Your task to perform on an android device: Search for a new desk on IKEA. Image 0: 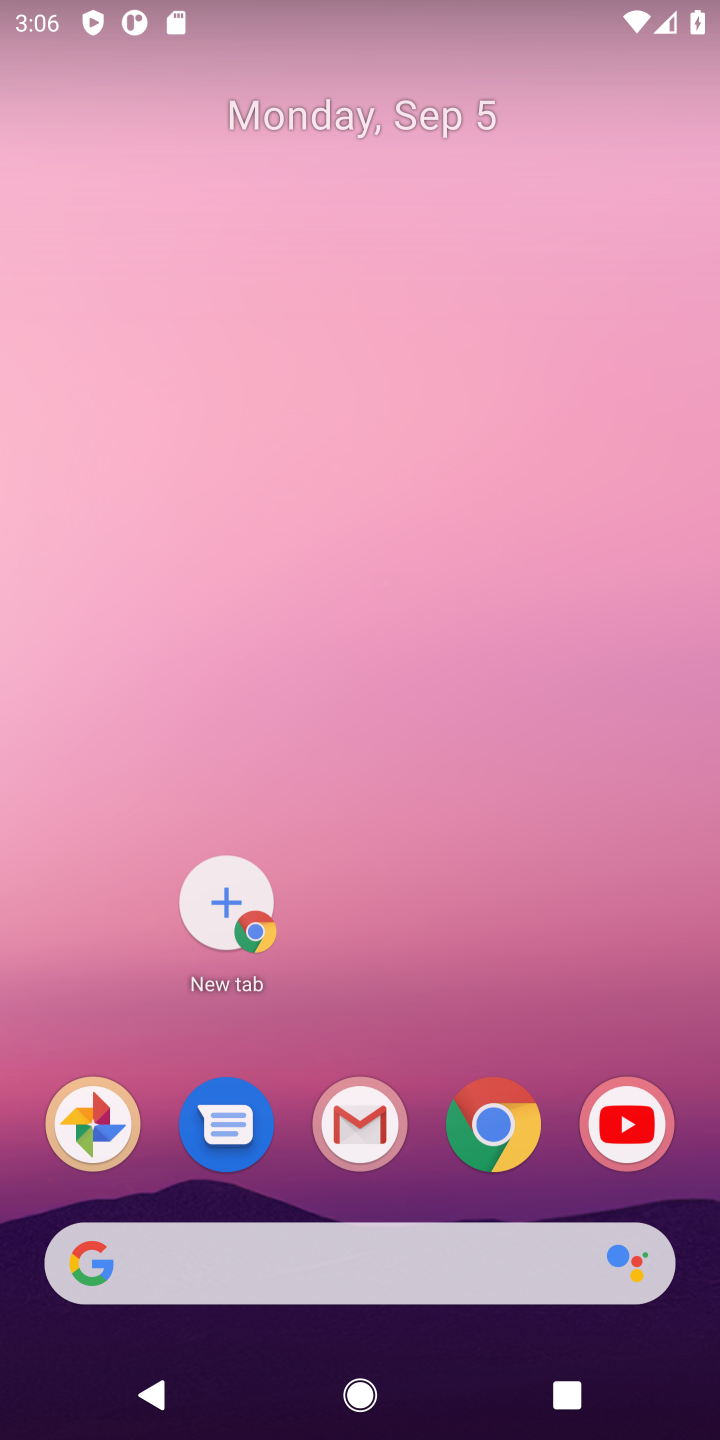
Step 0: press home button
Your task to perform on an android device: Search for a new desk on IKEA. Image 1: 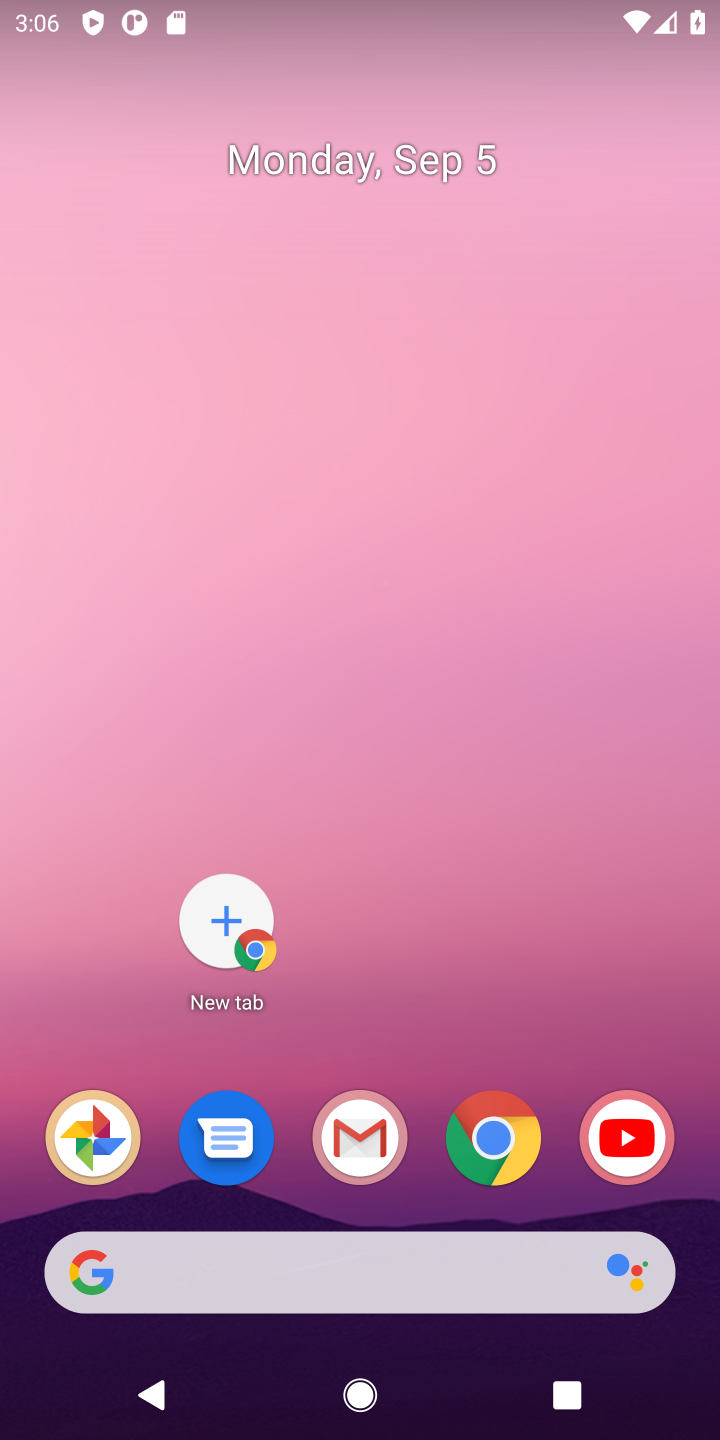
Step 1: click (486, 1128)
Your task to perform on an android device: Search for a new desk on IKEA. Image 2: 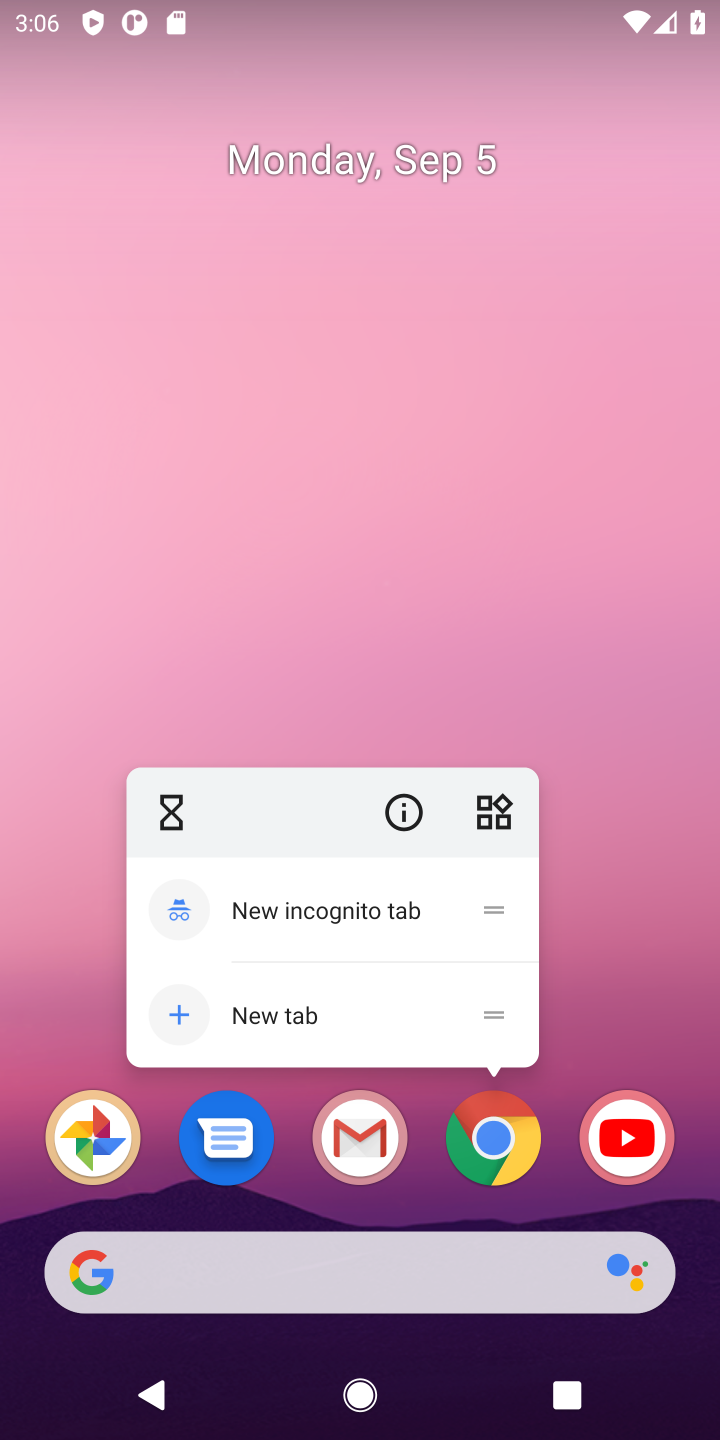
Step 2: click (528, 1151)
Your task to perform on an android device: Search for a new desk on IKEA. Image 3: 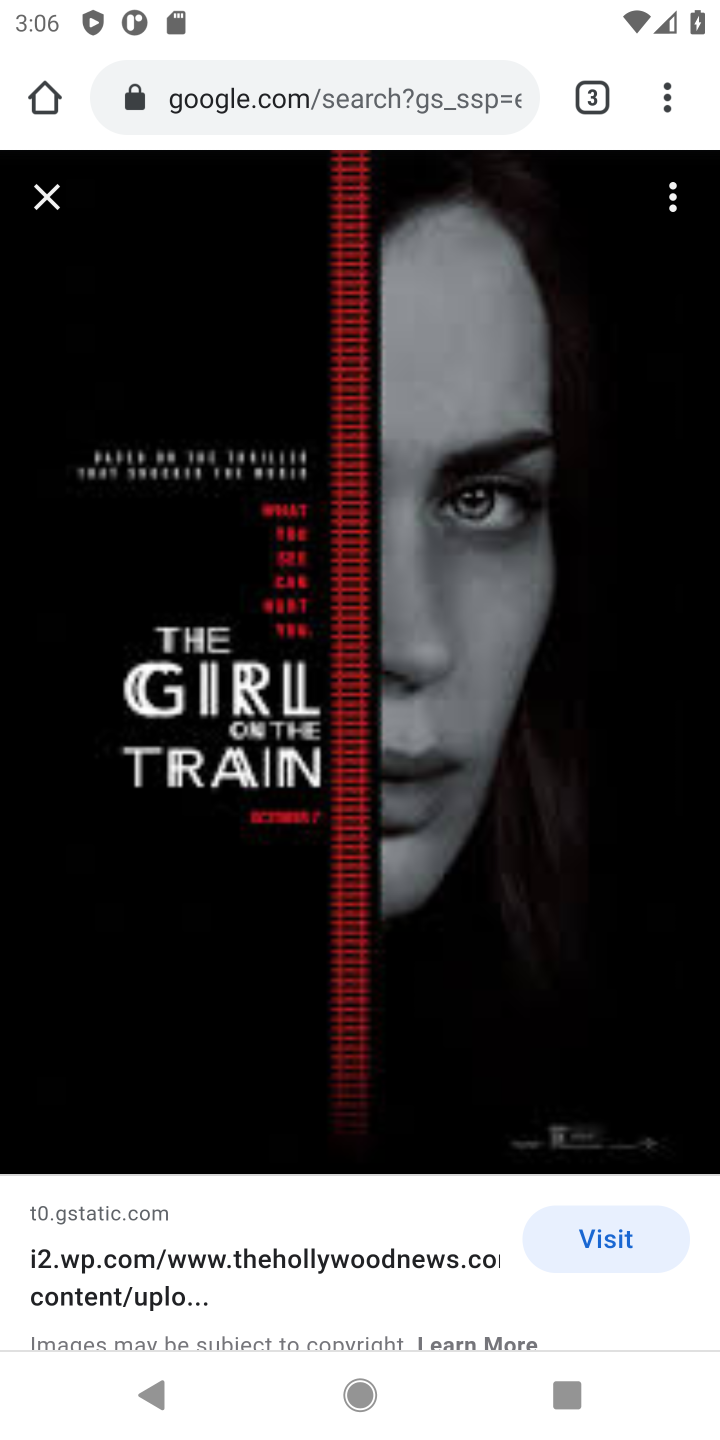
Step 3: click (233, 102)
Your task to perform on an android device: Search for a new desk on IKEA. Image 4: 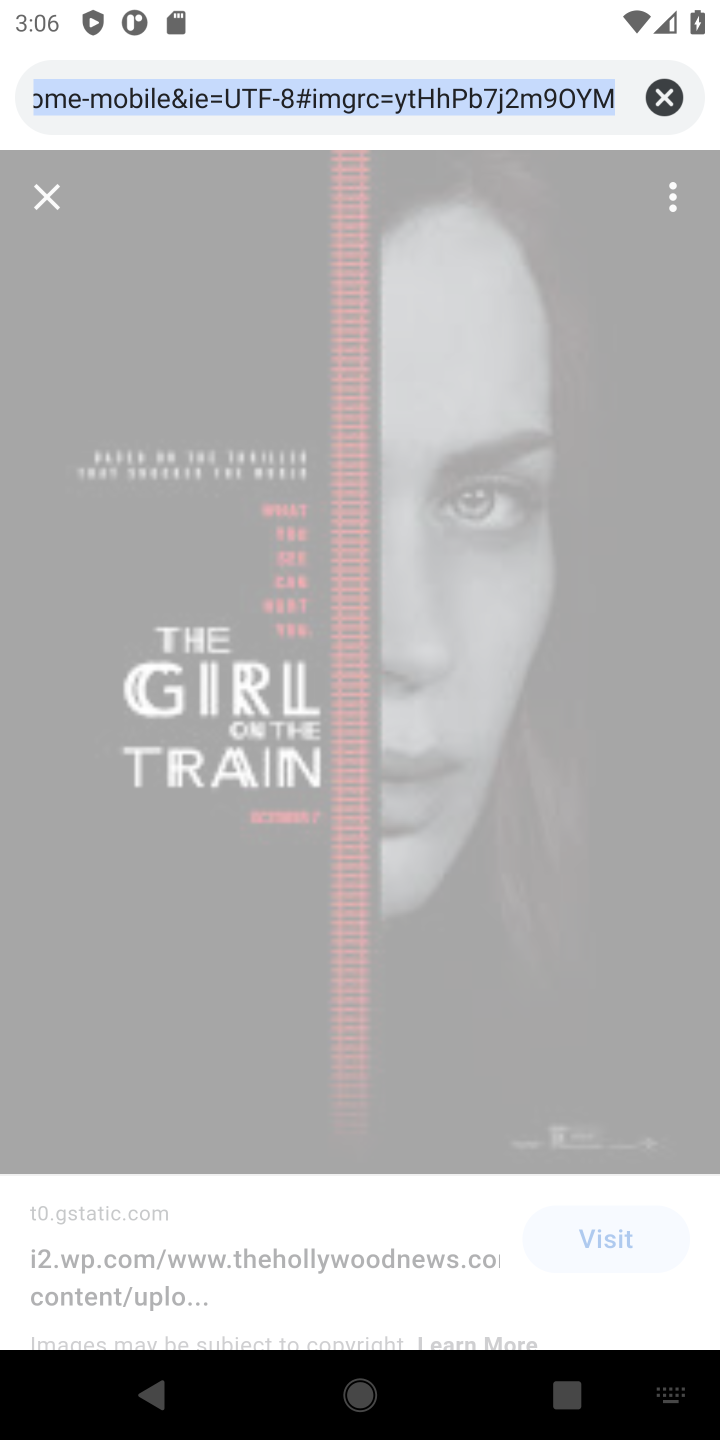
Step 4: click (660, 103)
Your task to perform on an android device: Search for a new desk on IKEA. Image 5: 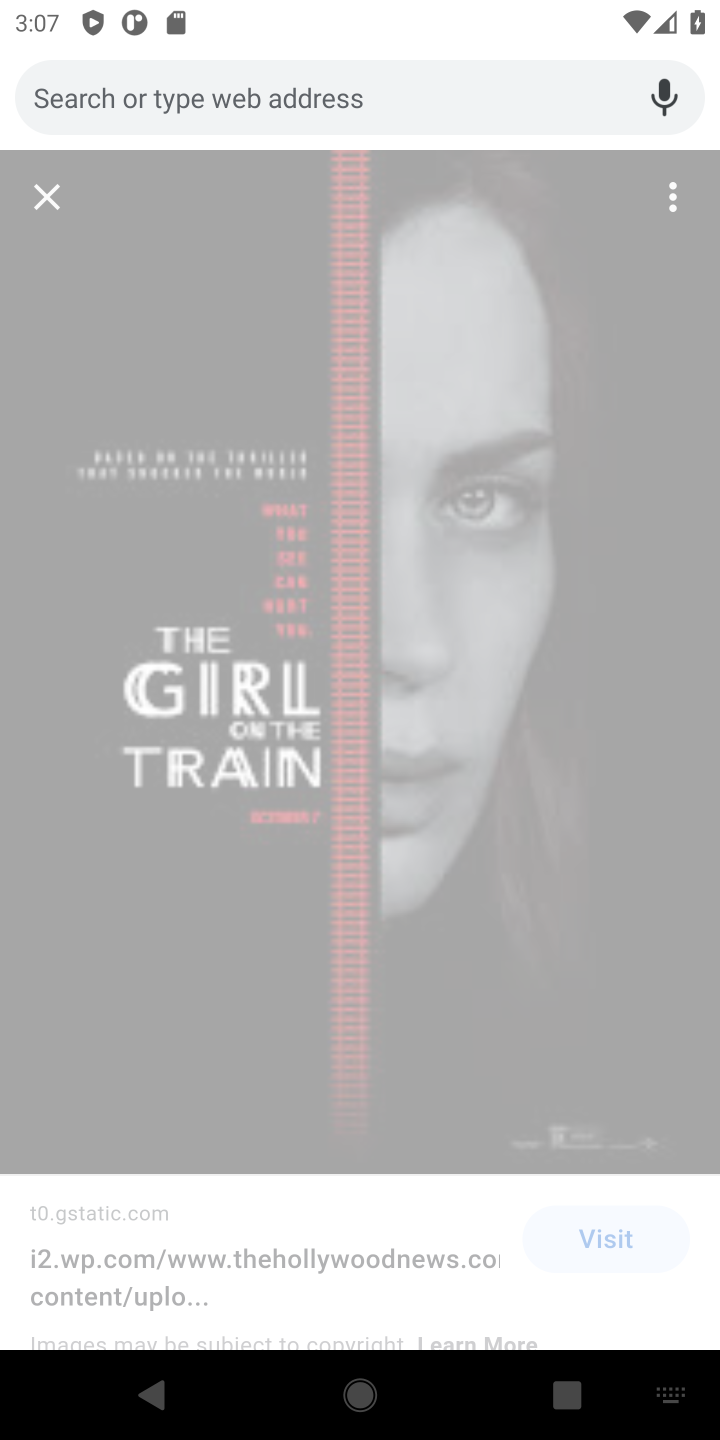
Step 5: type "ikea"
Your task to perform on an android device: Search for a new desk on IKEA. Image 6: 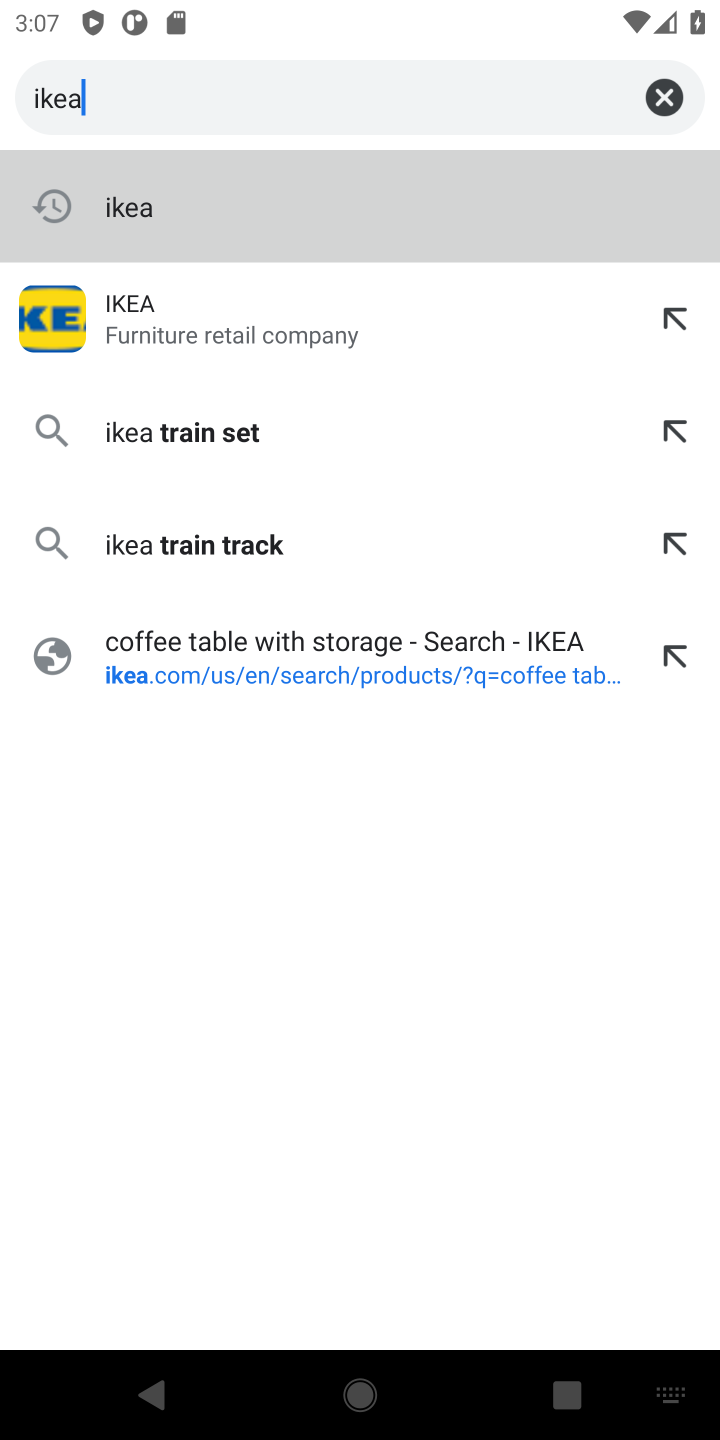
Step 6: click (159, 326)
Your task to perform on an android device: Search for a new desk on IKEA. Image 7: 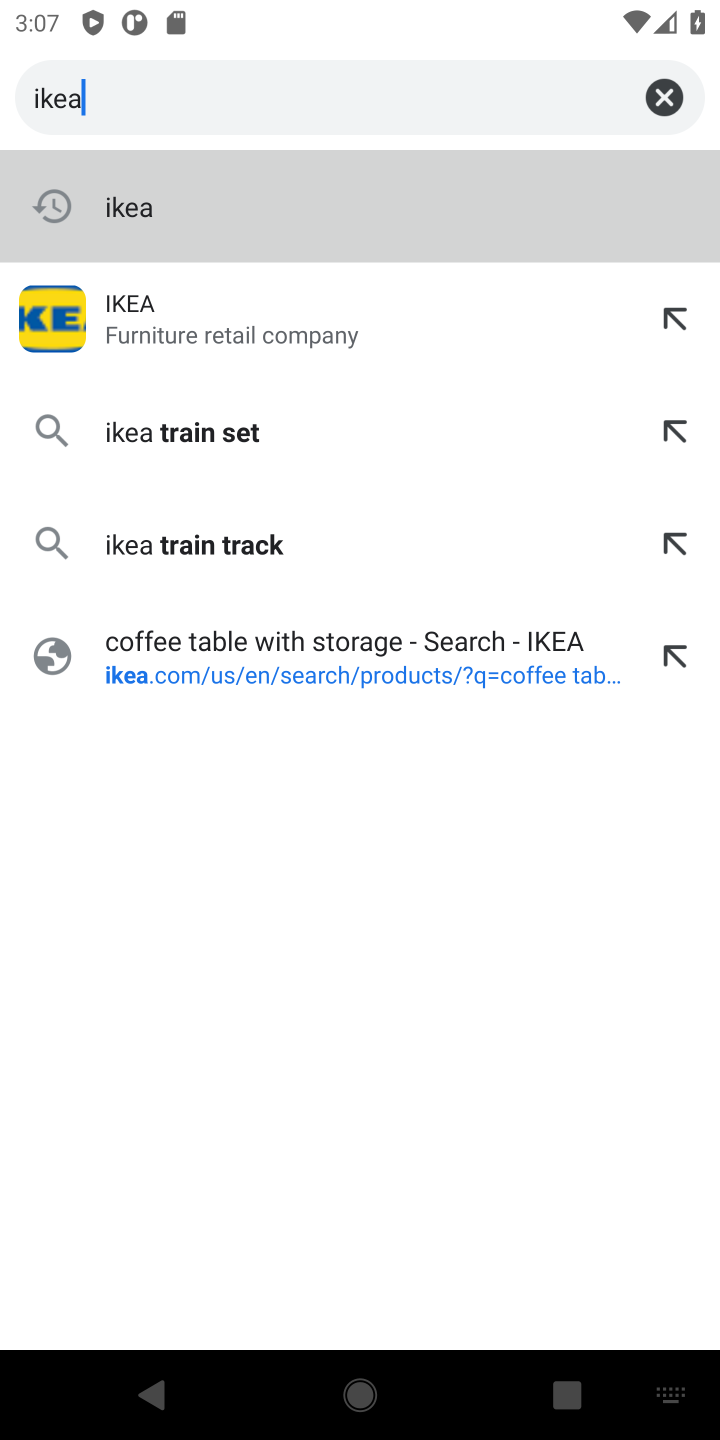
Step 7: click (159, 347)
Your task to perform on an android device: Search for a new desk on IKEA. Image 8: 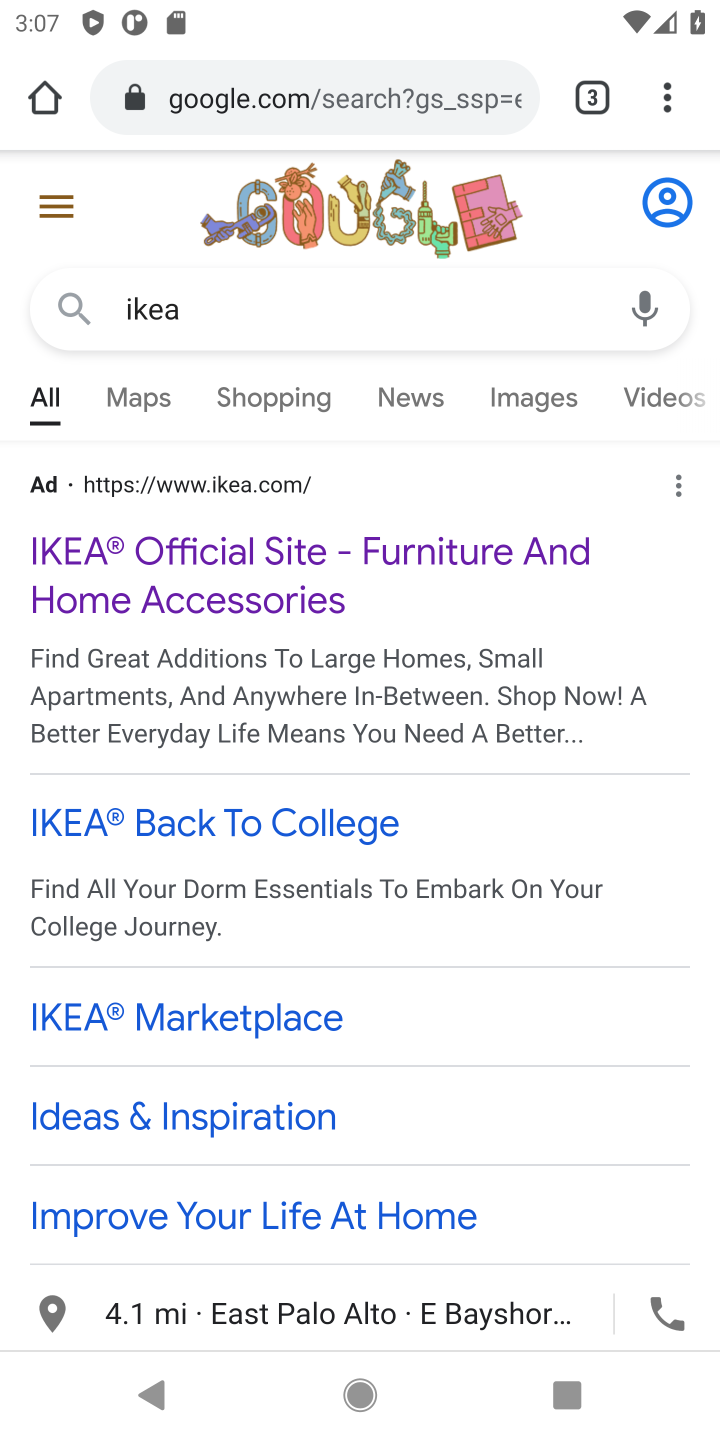
Step 8: click (213, 558)
Your task to perform on an android device: Search for a new desk on IKEA. Image 9: 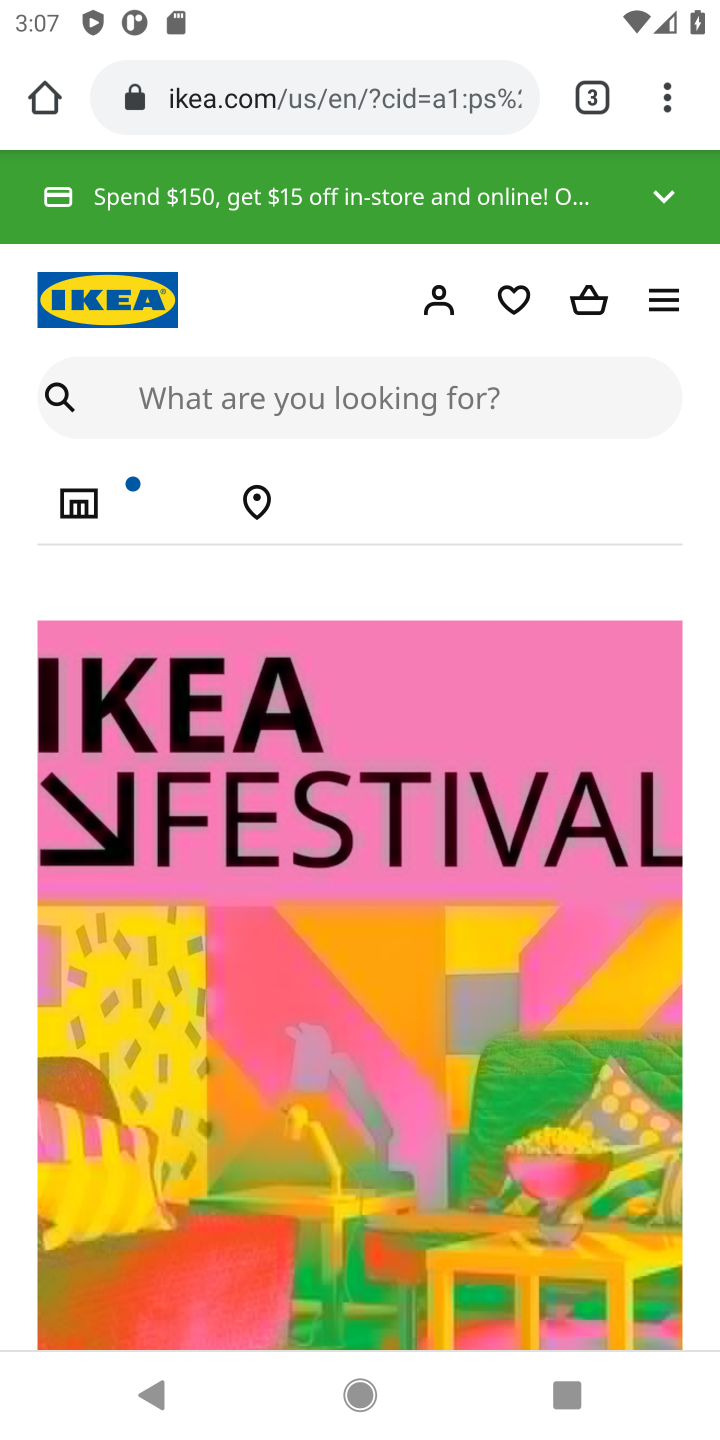
Step 9: click (235, 391)
Your task to perform on an android device: Search for a new desk on IKEA. Image 10: 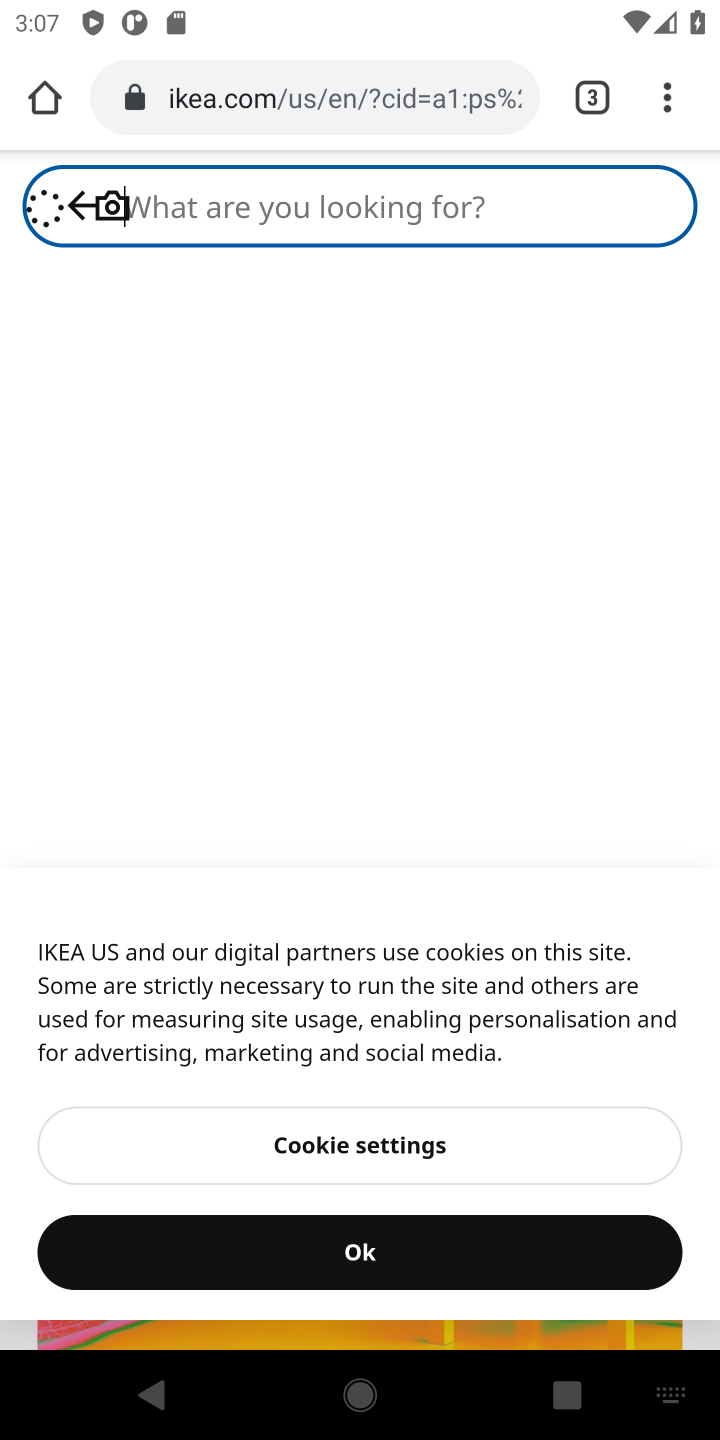
Step 10: type "new desk"
Your task to perform on an android device: Search for a new desk on IKEA. Image 11: 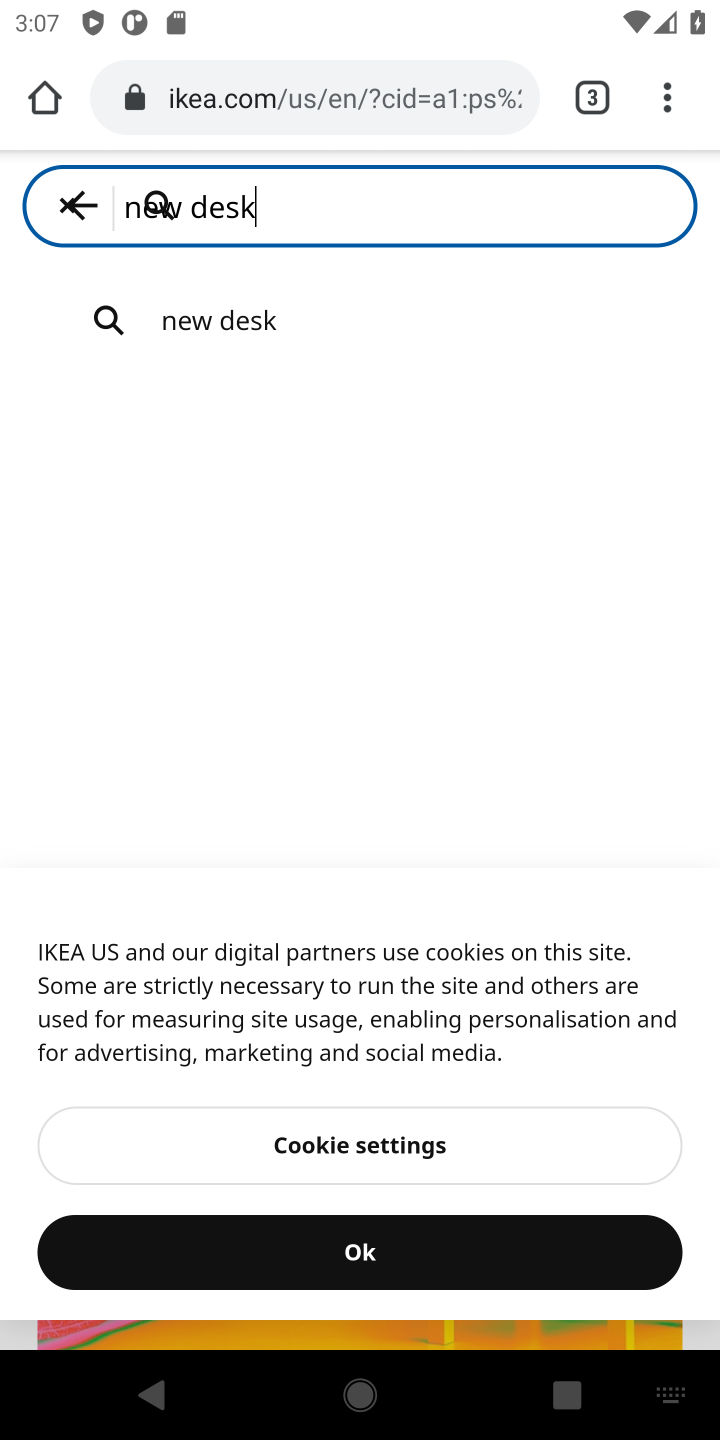
Step 11: click (211, 318)
Your task to perform on an android device: Search for a new desk on IKEA. Image 12: 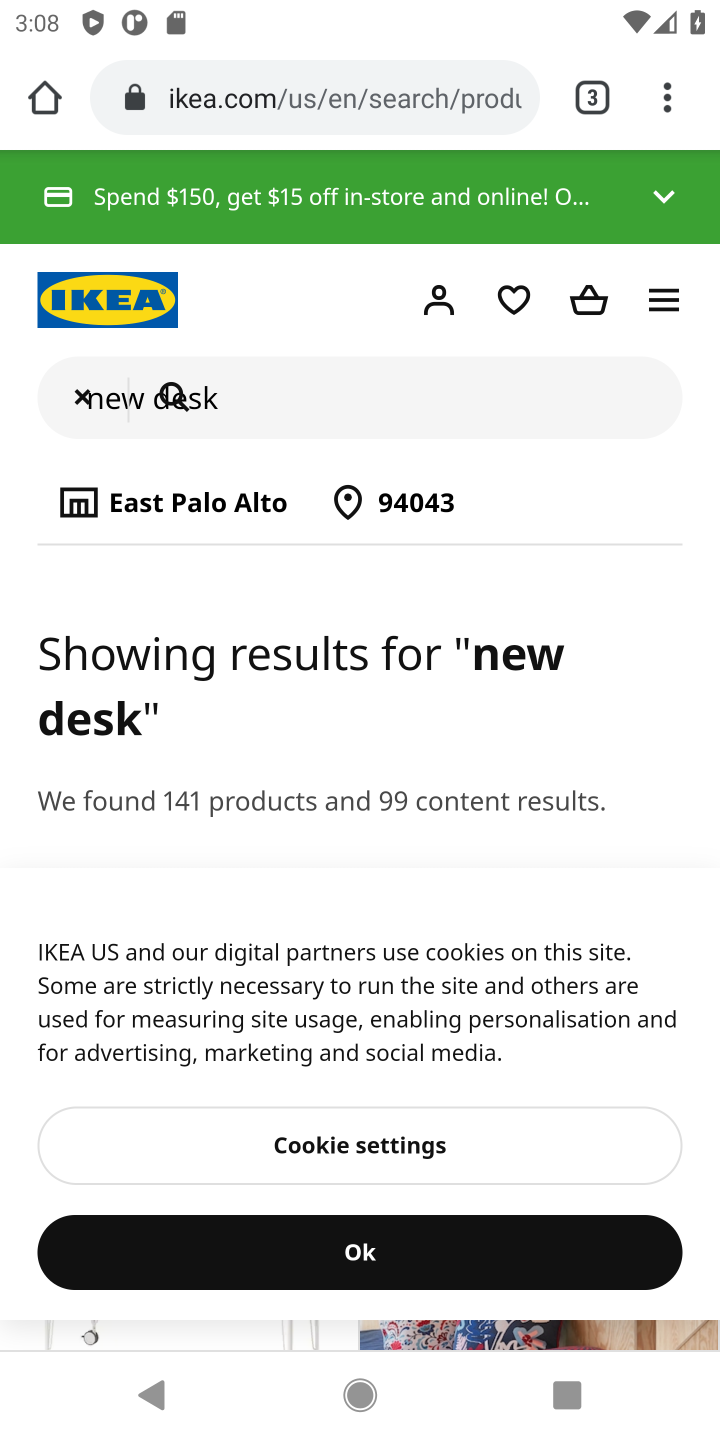
Step 12: drag from (587, 743) to (595, 535)
Your task to perform on an android device: Search for a new desk on IKEA. Image 13: 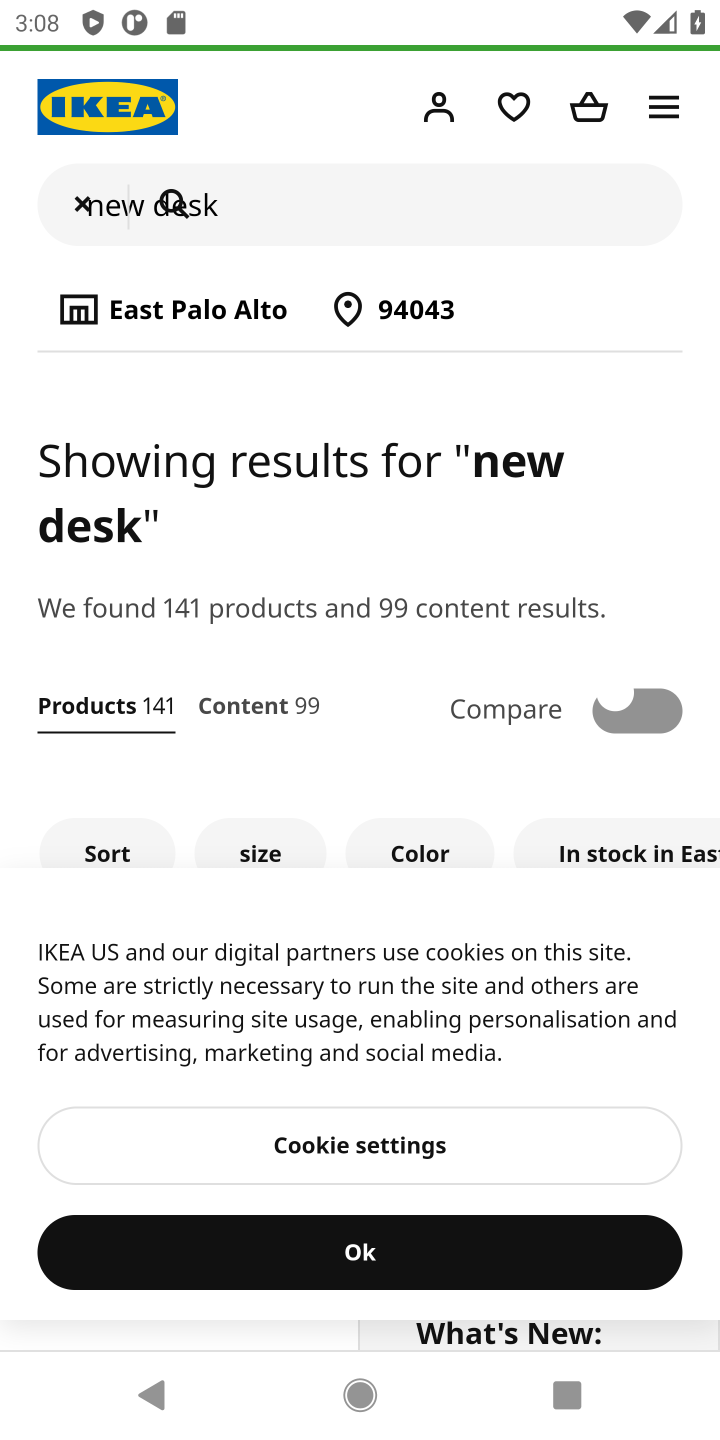
Step 13: drag from (688, 942) to (438, 286)
Your task to perform on an android device: Search for a new desk on IKEA. Image 14: 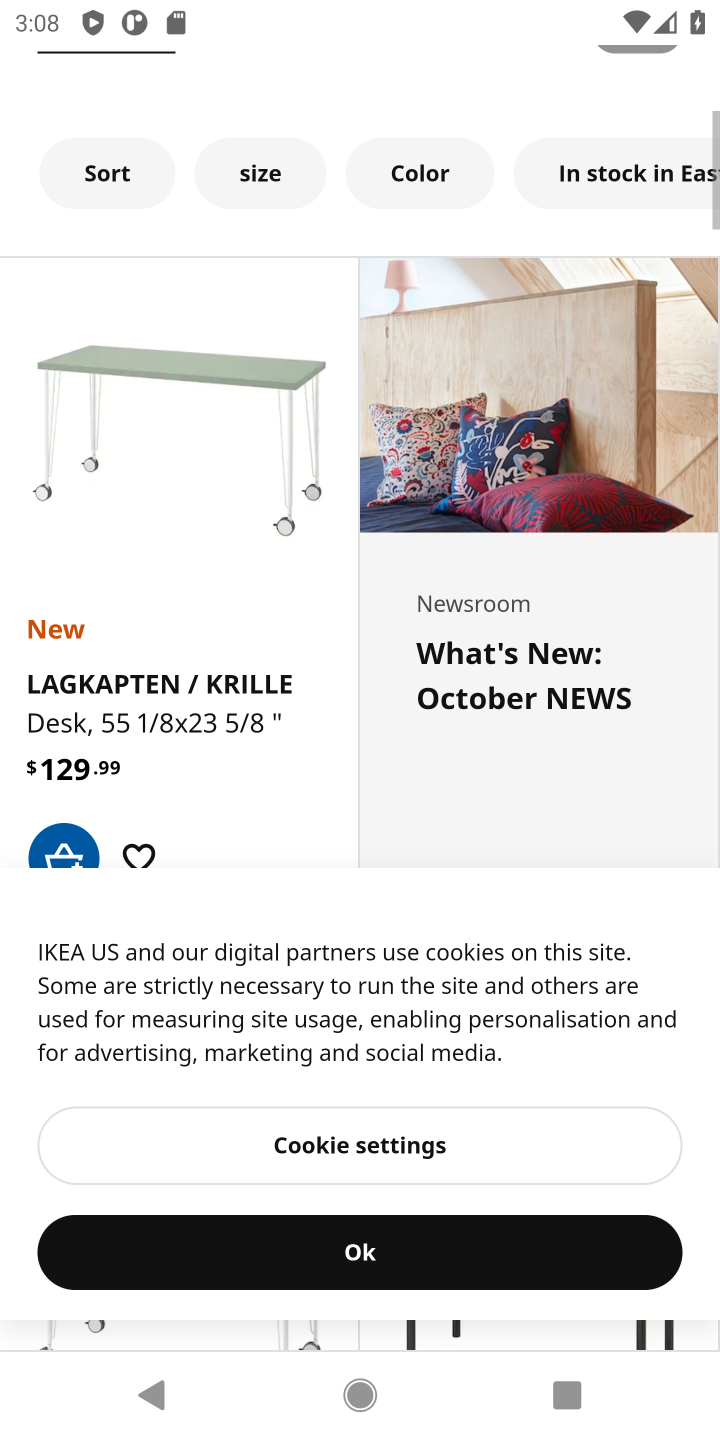
Step 14: drag from (350, 663) to (327, 276)
Your task to perform on an android device: Search for a new desk on IKEA. Image 15: 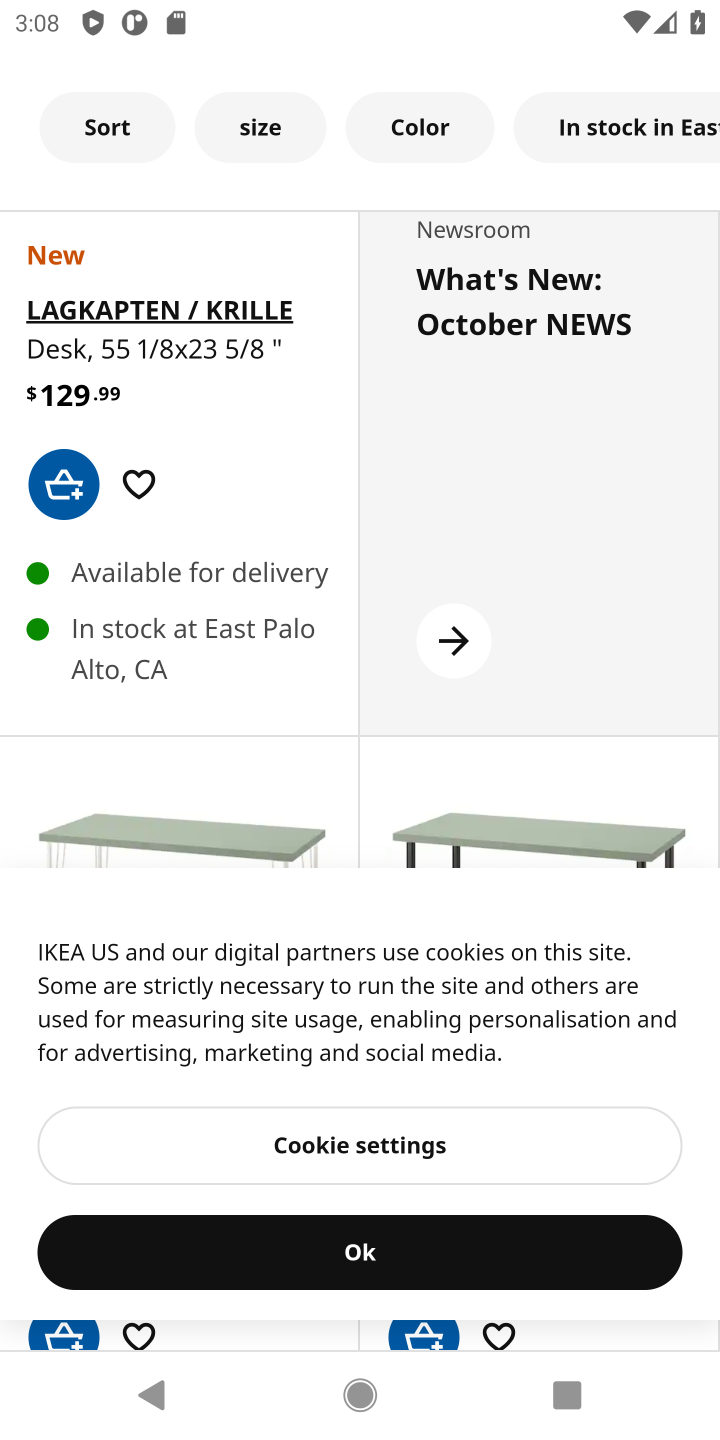
Step 15: drag from (357, 722) to (495, 379)
Your task to perform on an android device: Search for a new desk on IKEA. Image 16: 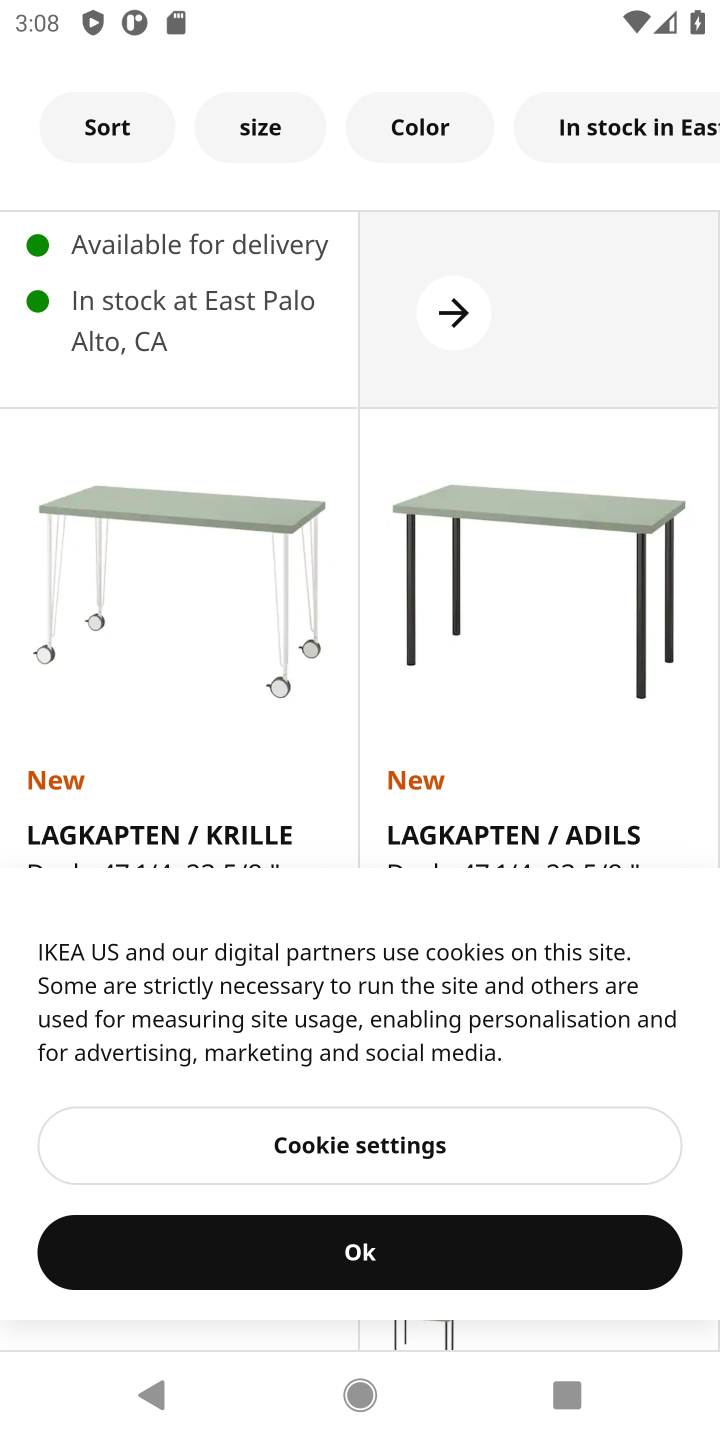
Step 16: drag from (657, 719) to (648, 463)
Your task to perform on an android device: Search for a new desk on IKEA. Image 17: 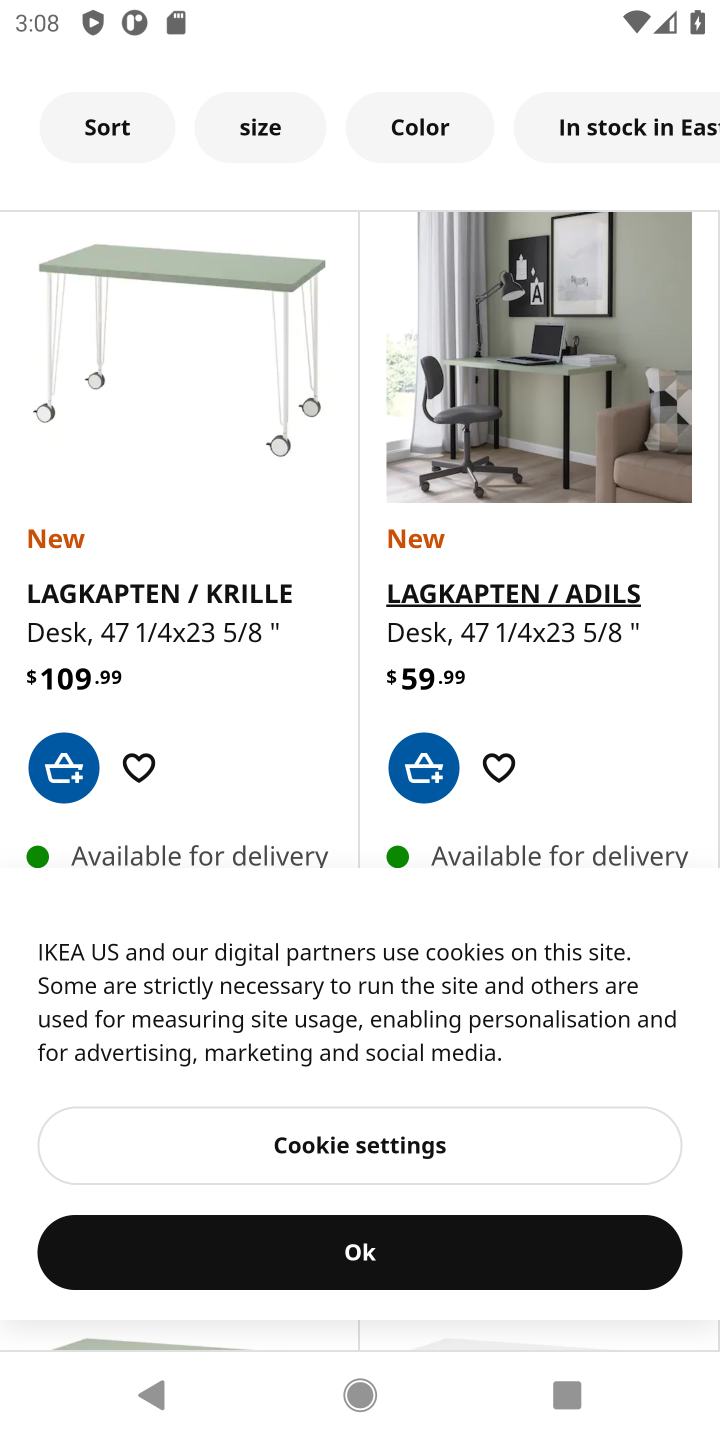
Step 17: drag from (609, 523) to (647, 376)
Your task to perform on an android device: Search for a new desk on IKEA. Image 18: 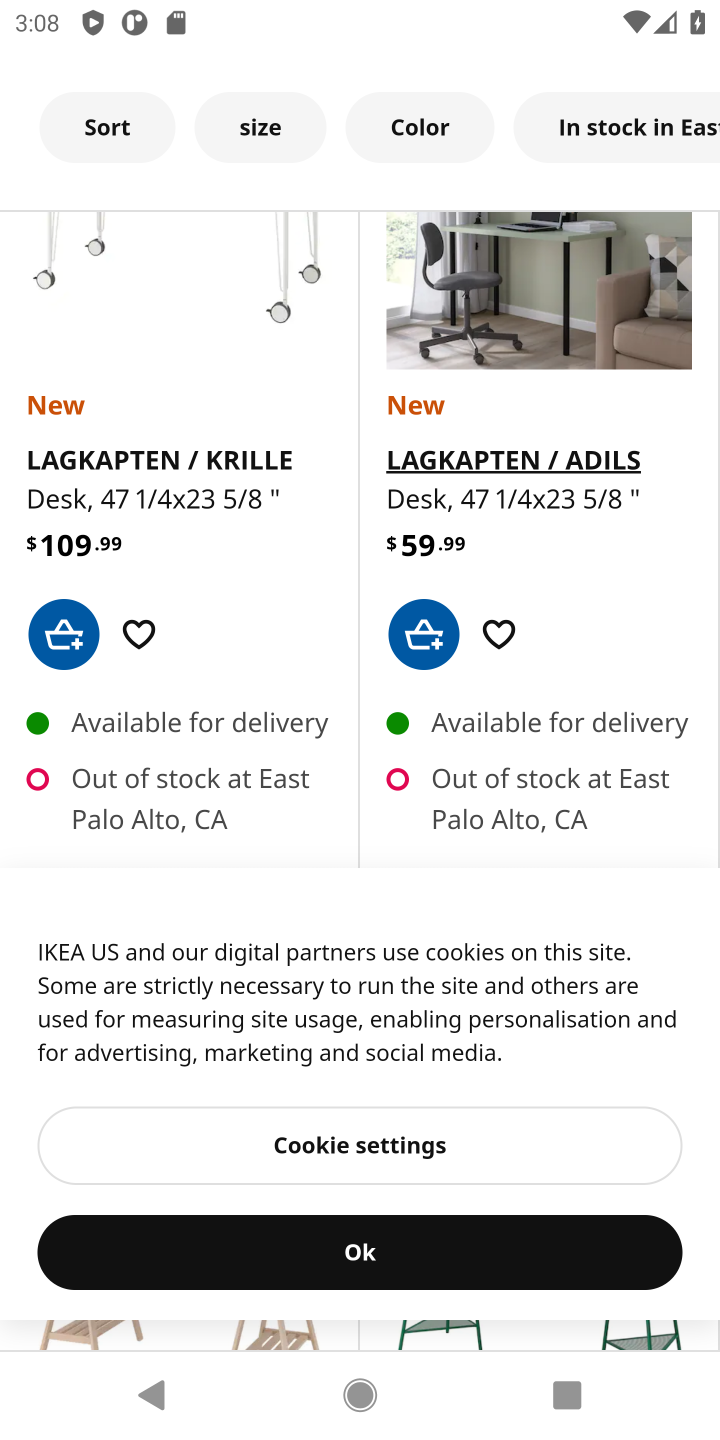
Step 18: drag from (628, 619) to (609, 383)
Your task to perform on an android device: Search for a new desk on IKEA. Image 19: 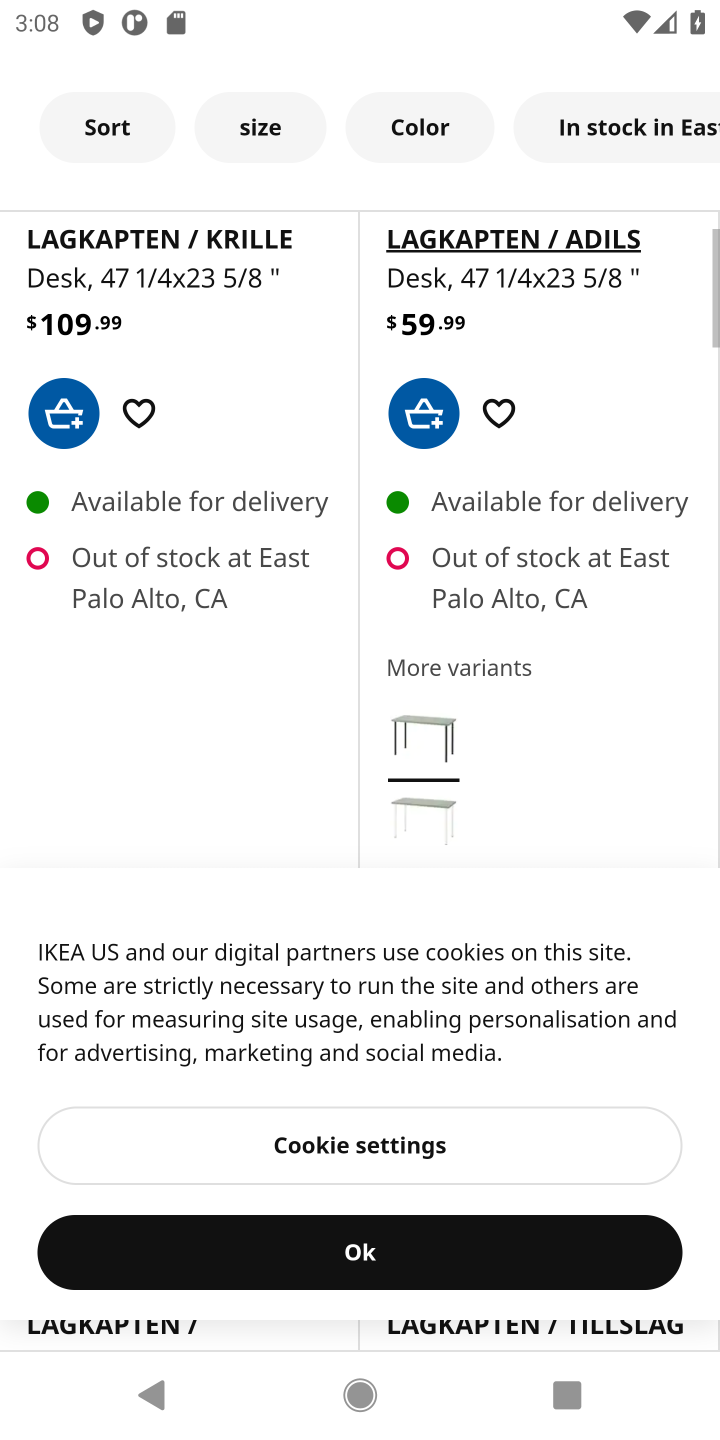
Step 19: click (559, 274)
Your task to perform on an android device: Search for a new desk on IKEA. Image 20: 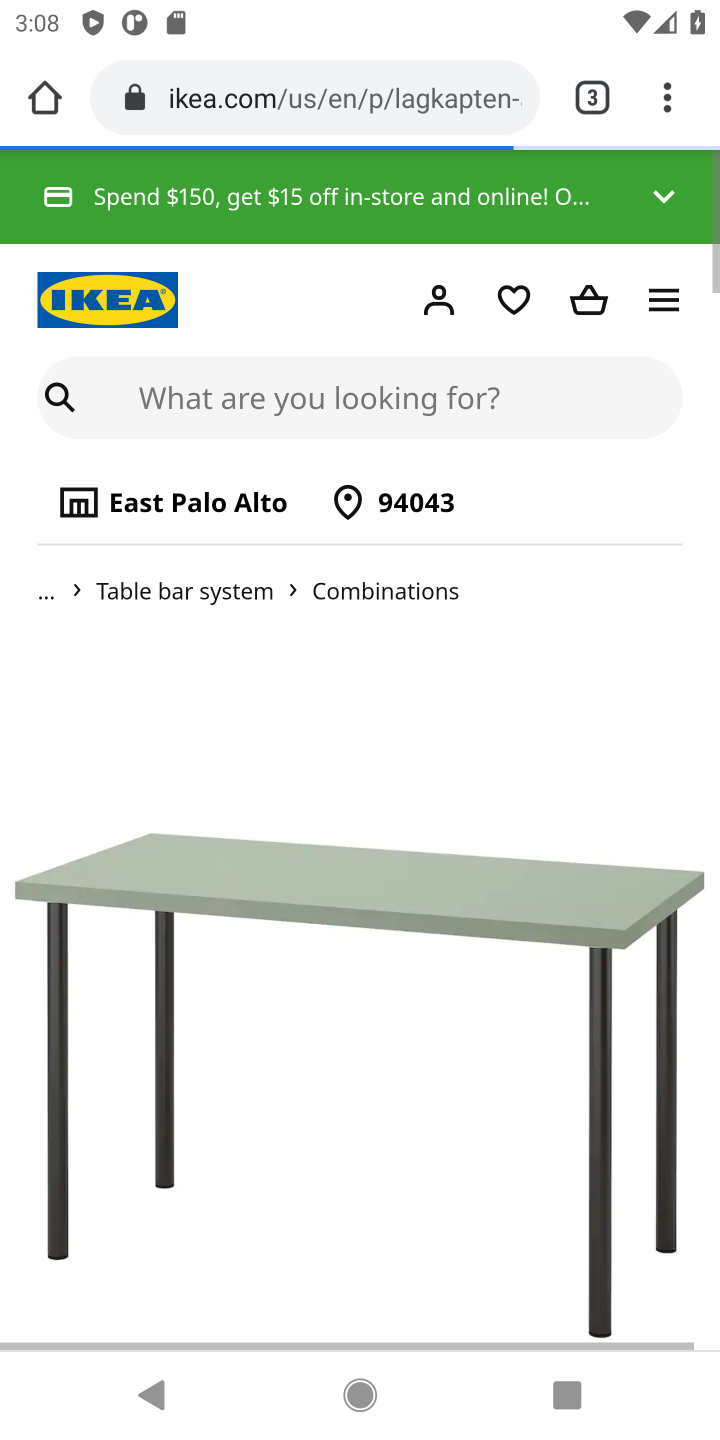
Step 20: task complete